Your task to perform on an android device: Is it going to rain this weekend? Image 0: 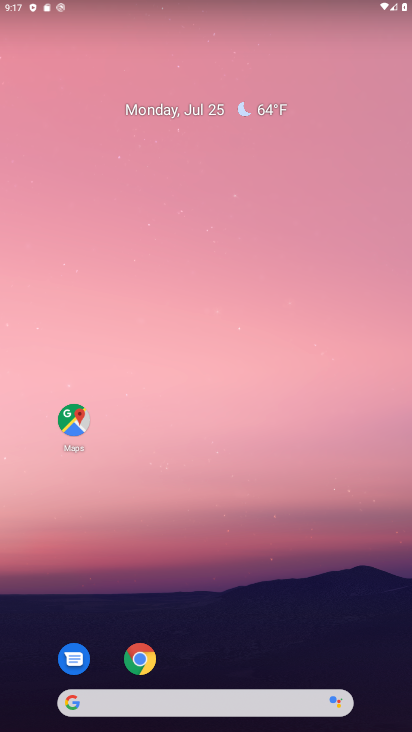
Step 0: click (206, 705)
Your task to perform on an android device: Is it going to rain this weekend? Image 1: 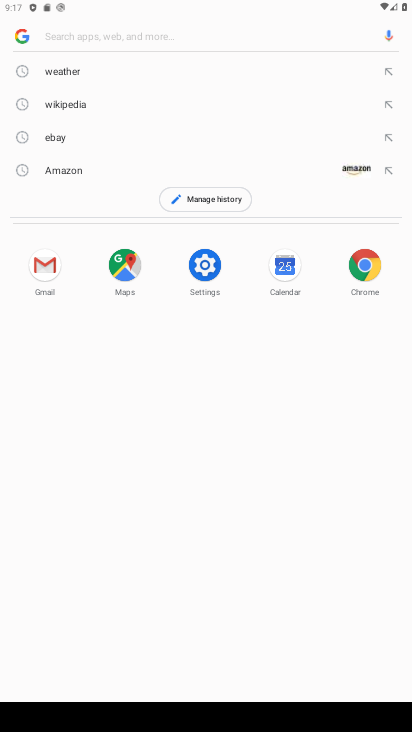
Step 1: click (214, 32)
Your task to perform on an android device: Is it going to rain this weekend? Image 2: 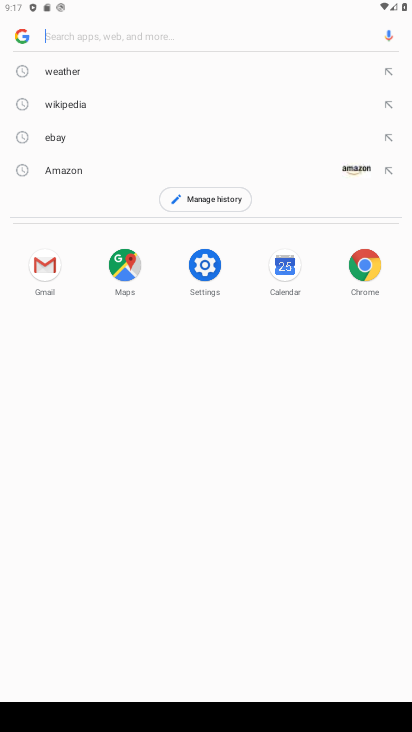
Step 2: click (95, 67)
Your task to perform on an android device: Is it going to rain this weekend? Image 3: 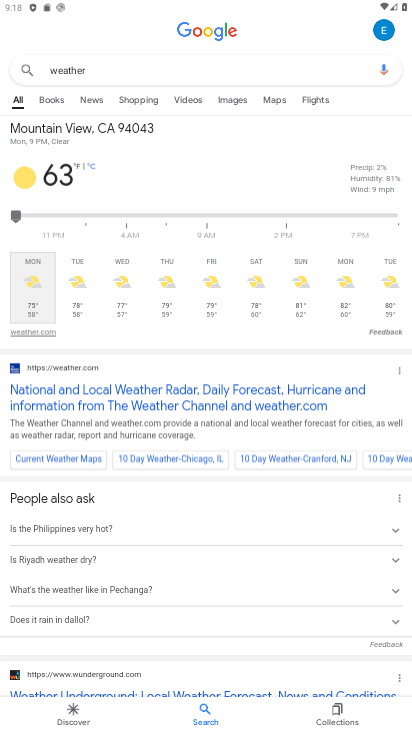
Step 3: click (254, 268)
Your task to perform on an android device: Is it going to rain this weekend? Image 4: 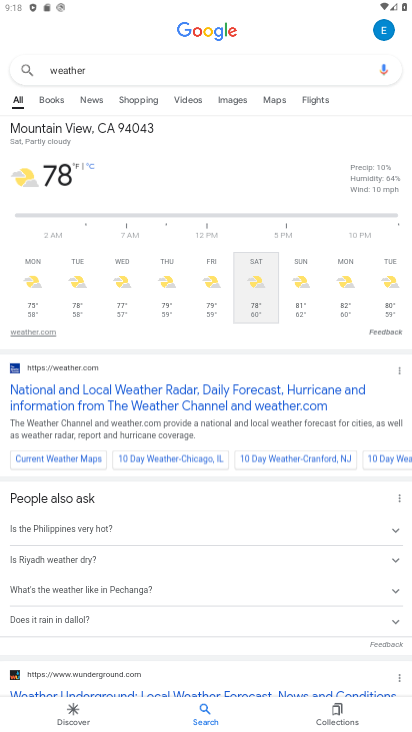
Step 4: task complete